Your task to perform on an android device: turn off sleep mode Image 0: 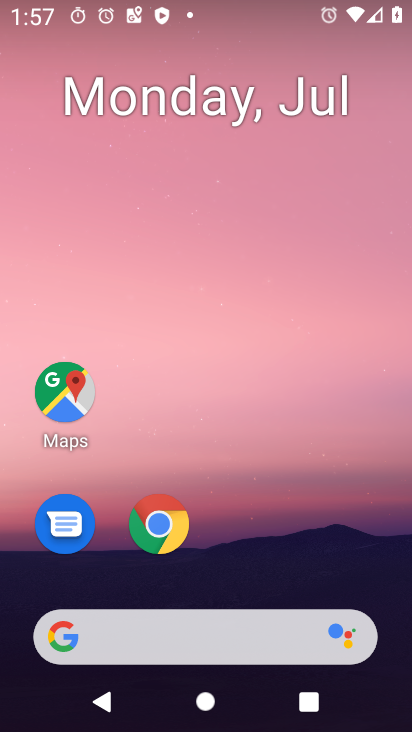
Step 0: press home button
Your task to perform on an android device: turn off sleep mode Image 1: 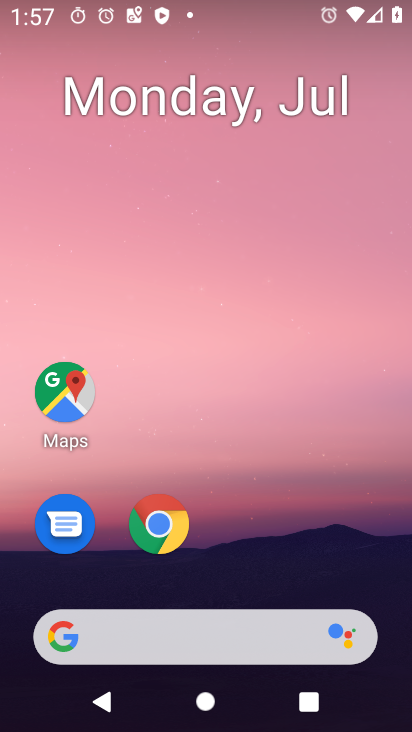
Step 1: drag from (301, 549) to (234, 141)
Your task to perform on an android device: turn off sleep mode Image 2: 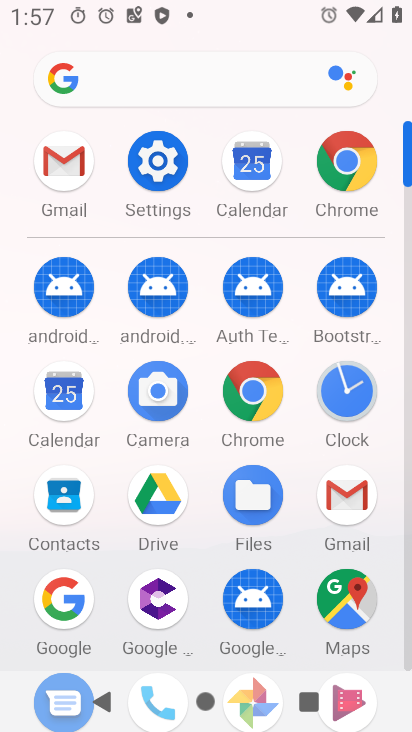
Step 2: click (154, 163)
Your task to perform on an android device: turn off sleep mode Image 3: 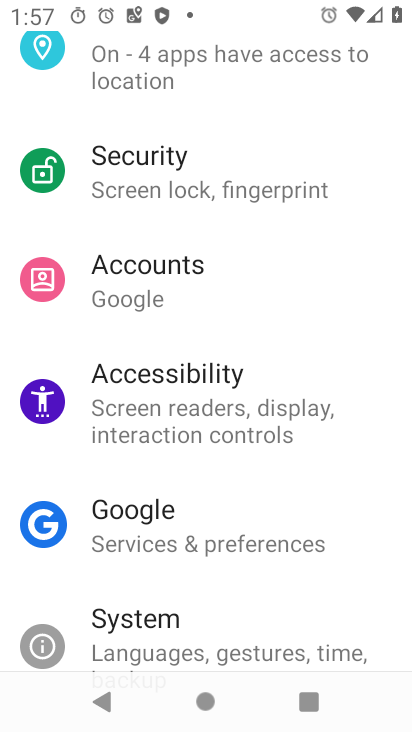
Step 3: drag from (185, 231) to (221, 607)
Your task to perform on an android device: turn off sleep mode Image 4: 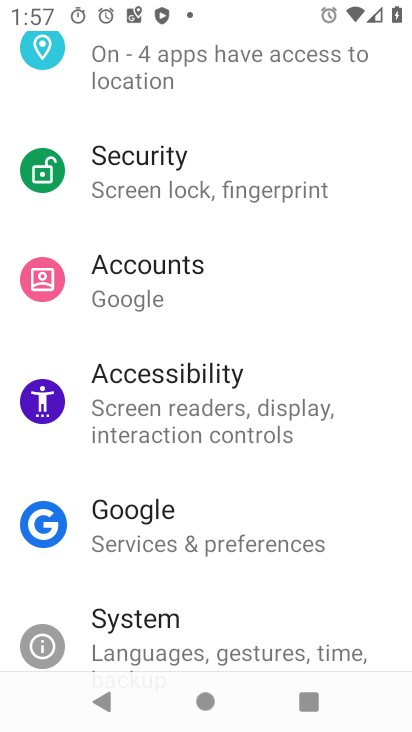
Step 4: drag from (88, 120) to (111, 598)
Your task to perform on an android device: turn off sleep mode Image 5: 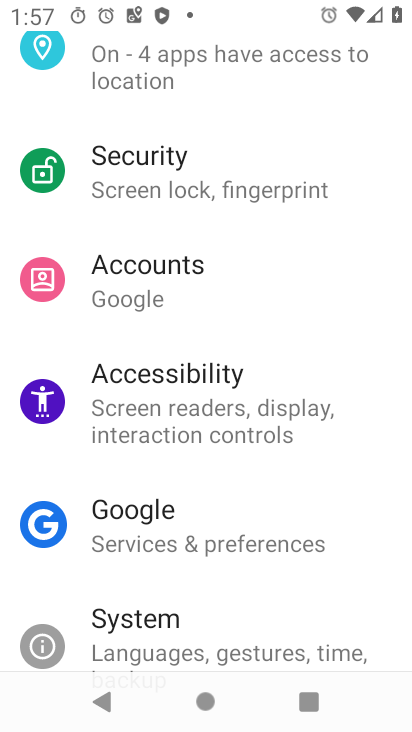
Step 5: drag from (238, 483) to (226, 717)
Your task to perform on an android device: turn off sleep mode Image 6: 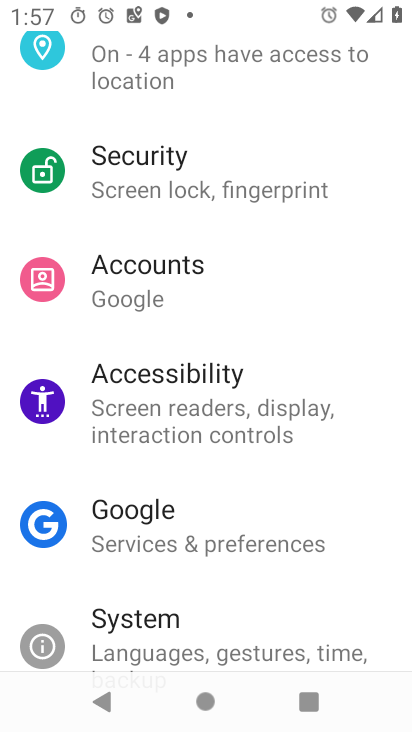
Step 6: drag from (46, 98) to (87, 685)
Your task to perform on an android device: turn off sleep mode Image 7: 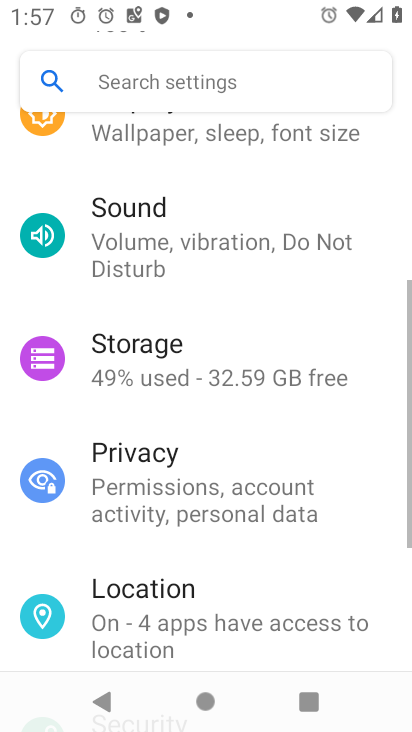
Step 7: drag from (268, 93) to (258, 501)
Your task to perform on an android device: turn off sleep mode Image 8: 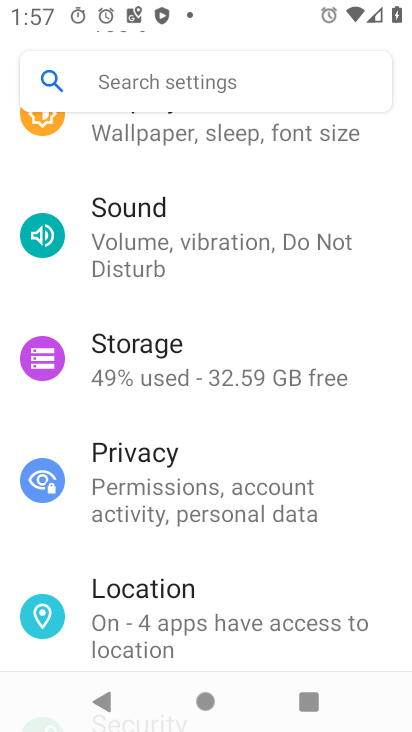
Step 8: click (215, 141)
Your task to perform on an android device: turn off sleep mode Image 9: 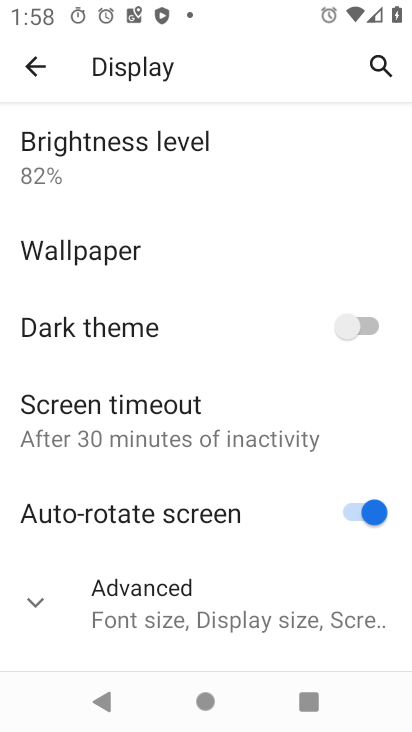
Step 9: click (28, 603)
Your task to perform on an android device: turn off sleep mode Image 10: 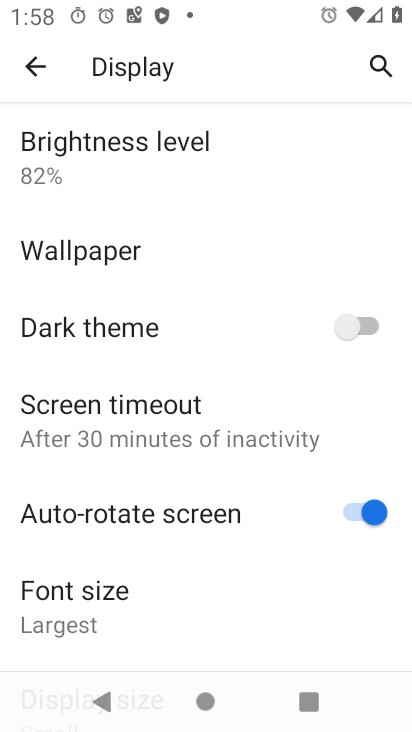
Step 10: task complete